Your task to perform on an android device: open a new tab in the chrome app Image 0: 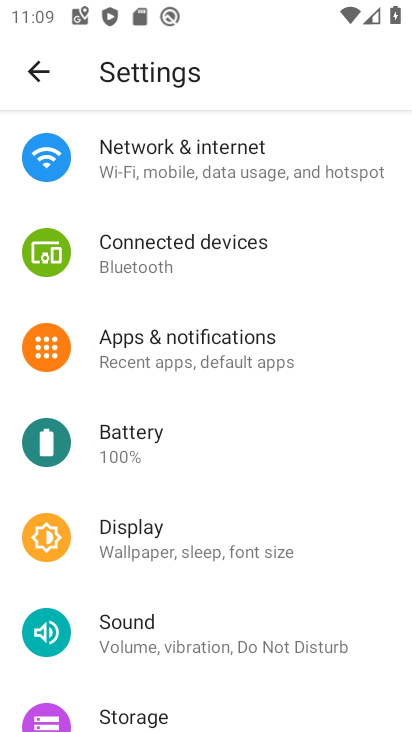
Step 0: press home button
Your task to perform on an android device: open a new tab in the chrome app Image 1: 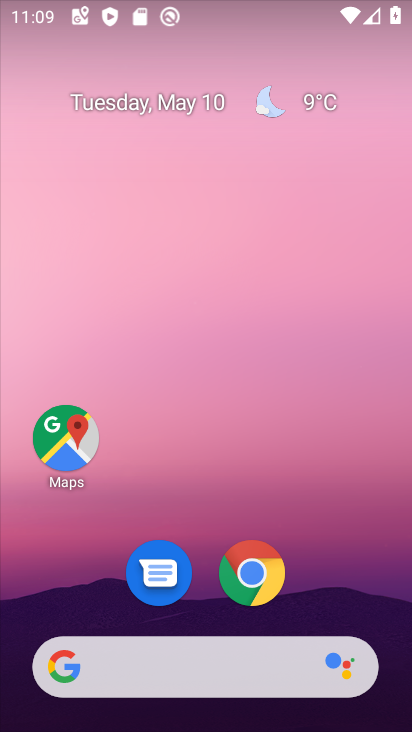
Step 1: click (259, 574)
Your task to perform on an android device: open a new tab in the chrome app Image 2: 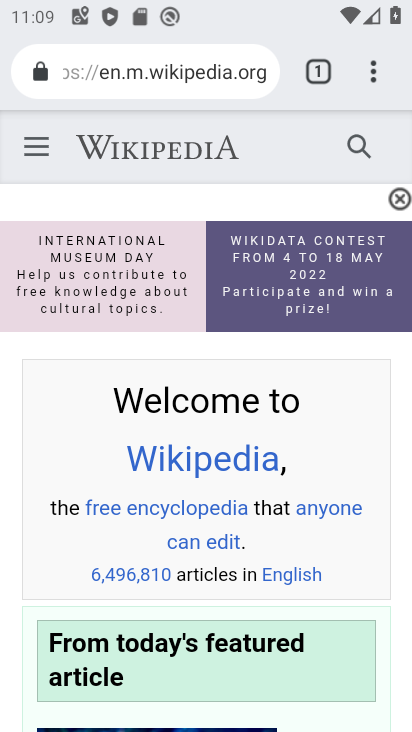
Step 2: click (374, 79)
Your task to perform on an android device: open a new tab in the chrome app Image 3: 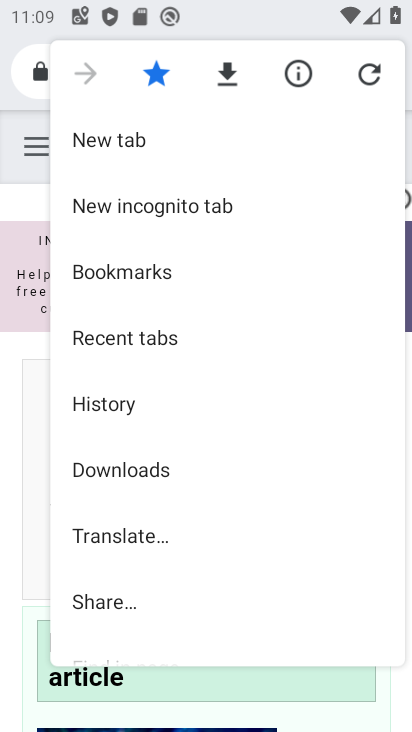
Step 3: click (115, 137)
Your task to perform on an android device: open a new tab in the chrome app Image 4: 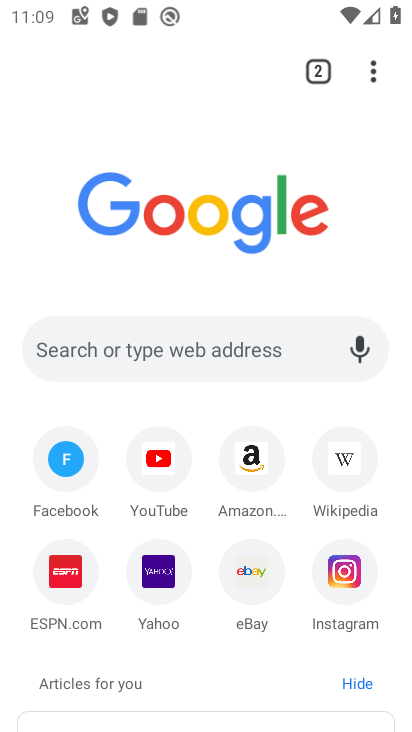
Step 4: task complete